Your task to perform on an android device: snooze an email in the gmail app Image 0: 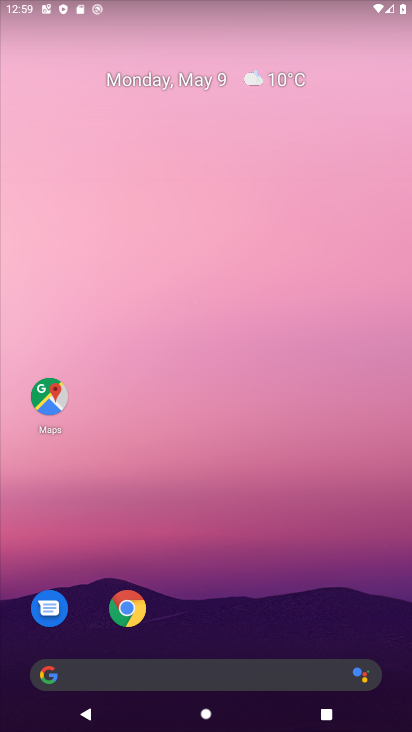
Step 0: drag from (210, 632) to (274, 128)
Your task to perform on an android device: snooze an email in the gmail app Image 1: 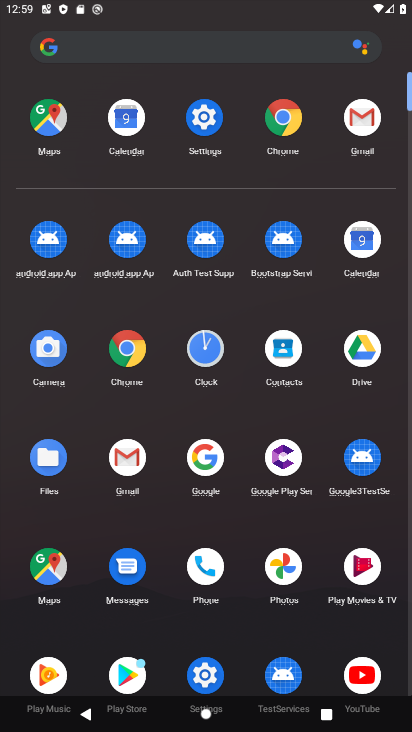
Step 1: click (130, 469)
Your task to perform on an android device: snooze an email in the gmail app Image 2: 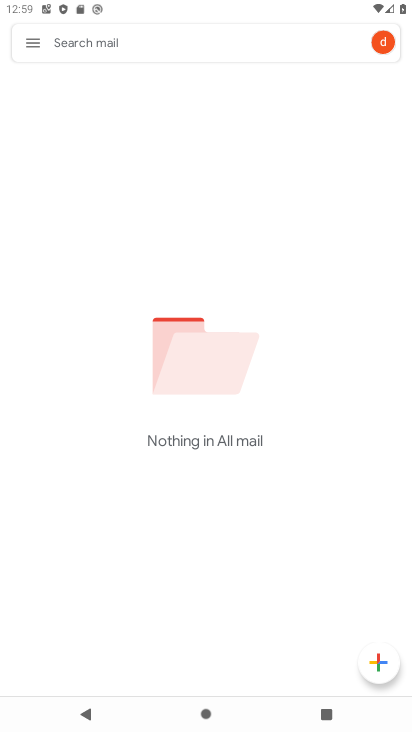
Step 2: click (31, 40)
Your task to perform on an android device: snooze an email in the gmail app Image 3: 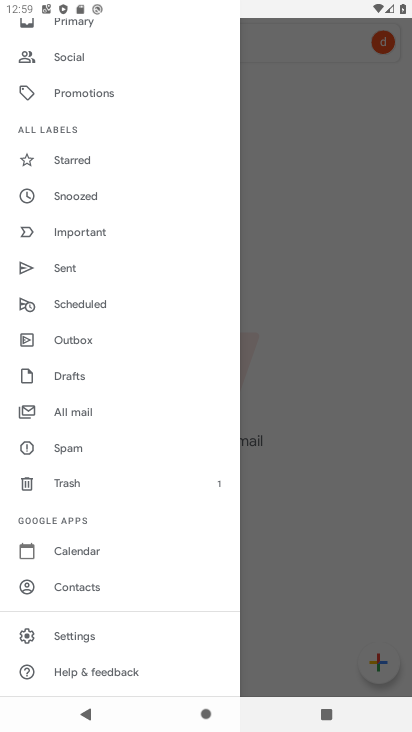
Step 3: drag from (64, 635) to (83, 332)
Your task to perform on an android device: snooze an email in the gmail app Image 4: 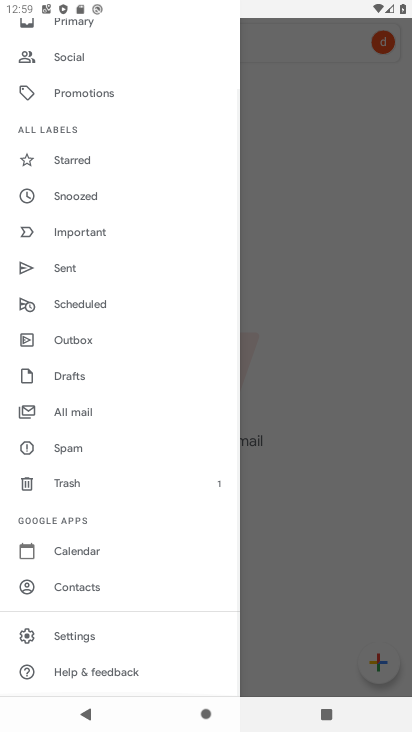
Step 4: drag from (91, 241) to (83, 430)
Your task to perform on an android device: snooze an email in the gmail app Image 5: 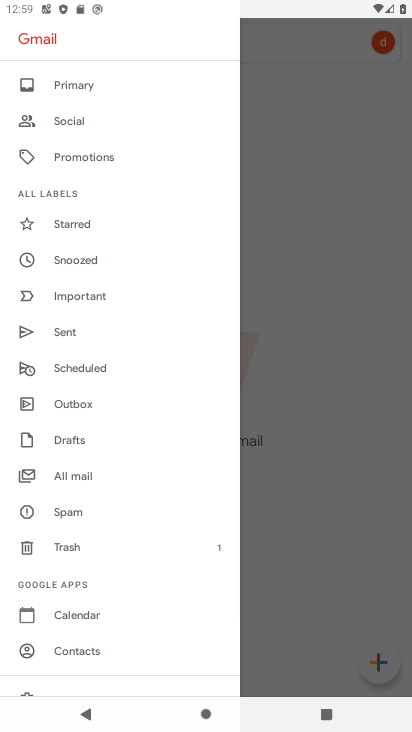
Step 5: click (65, 484)
Your task to perform on an android device: snooze an email in the gmail app Image 6: 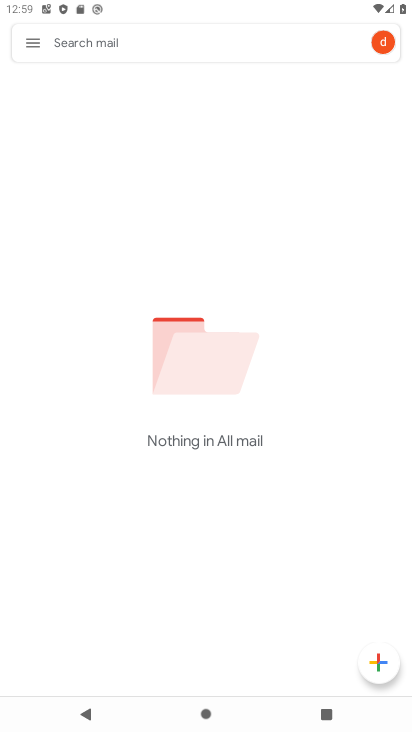
Step 6: task complete